Your task to perform on an android device: turn off priority inbox in the gmail app Image 0: 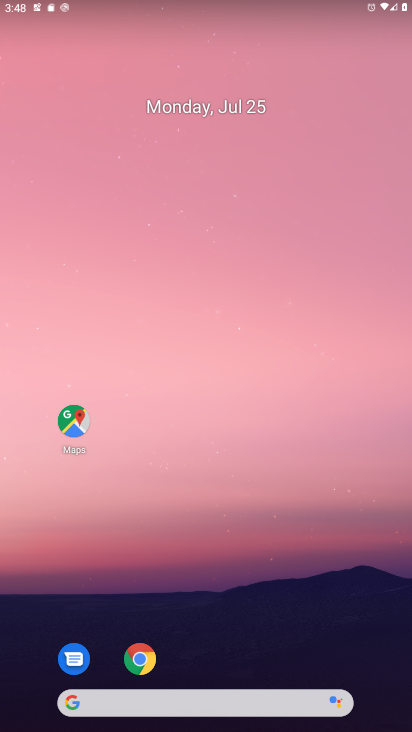
Step 0: drag from (187, 604) to (183, 182)
Your task to perform on an android device: turn off priority inbox in the gmail app Image 1: 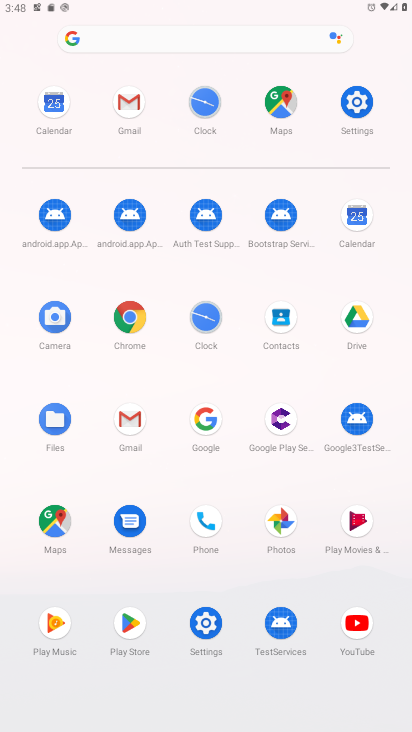
Step 1: click (115, 443)
Your task to perform on an android device: turn off priority inbox in the gmail app Image 2: 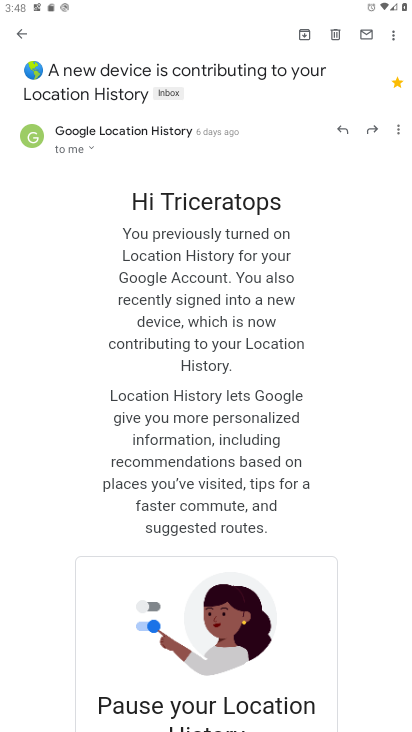
Step 2: click (23, 36)
Your task to perform on an android device: turn off priority inbox in the gmail app Image 3: 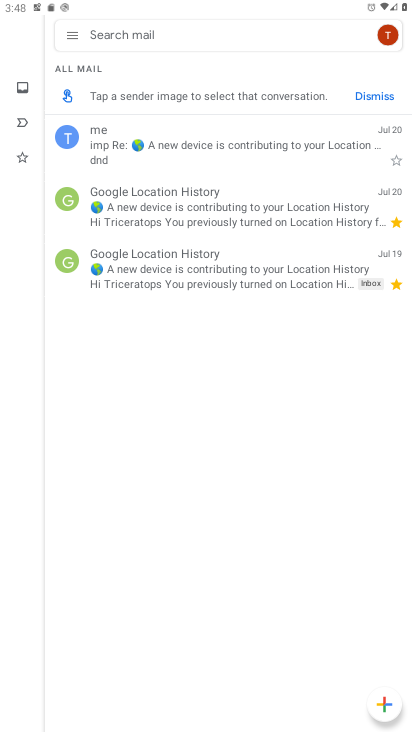
Step 3: click (65, 36)
Your task to perform on an android device: turn off priority inbox in the gmail app Image 4: 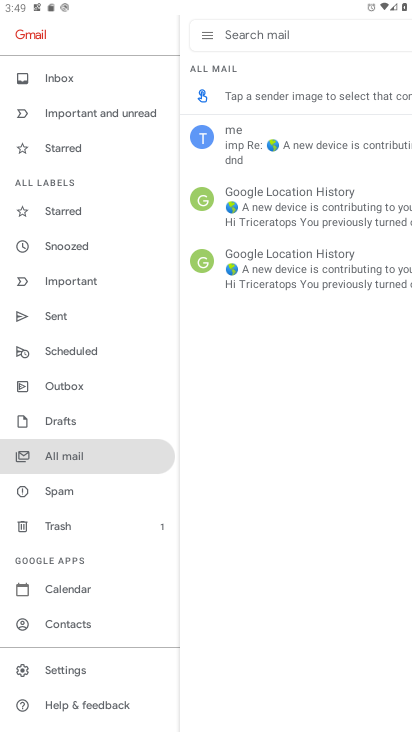
Step 4: click (66, 674)
Your task to perform on an android device: turn off priority inbox in the gmail app Image 5: 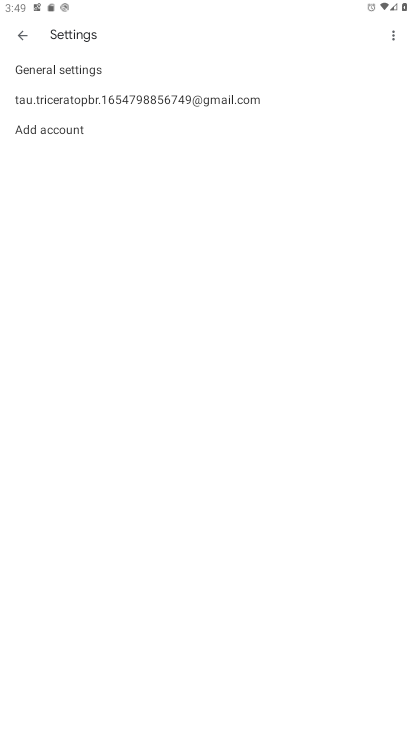
Step 5: click (118, 93)
Your task to perform on an android device: turn off priority inbox in the gmail app Image 6: 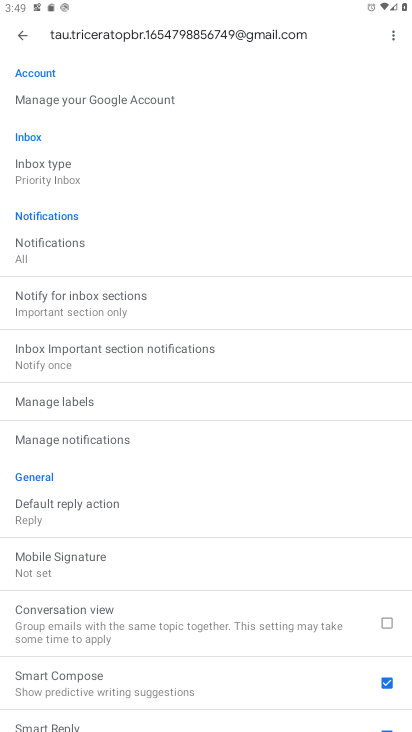
Step 6: click (33, 173)
Your task to perform on an android device: turn off priority inbox in the gmail app Image 7: 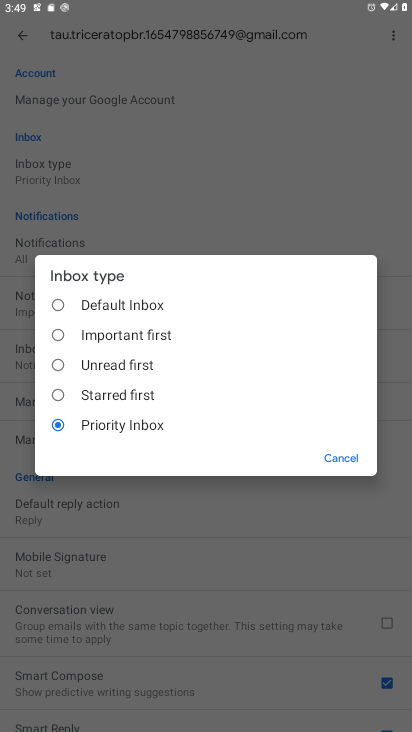
Step 7: task complete